Your task to perform on an android device: Go to sound settings Image 0: 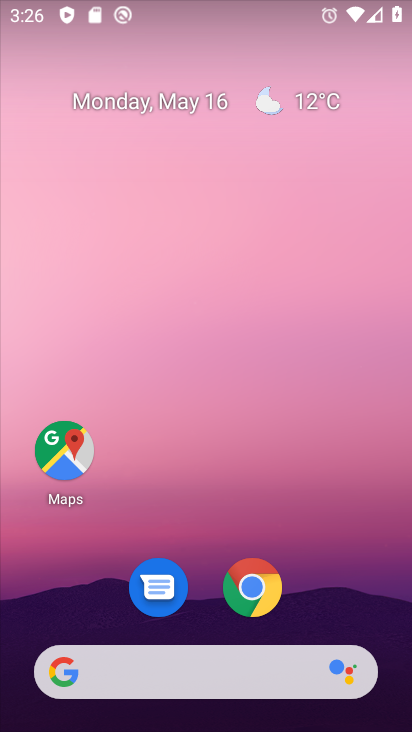
Step 0: drag from (393, 641) to (394, 285)
Your task to perform on an android device: Go to sound settings Image 1: 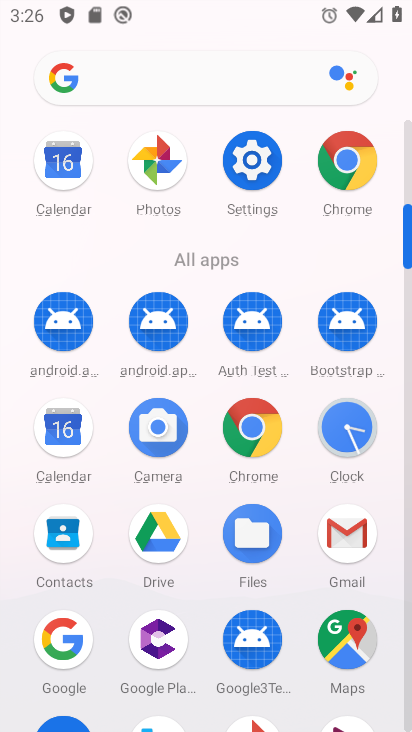
Step 1: click (260, 168)
Your task to perform on an android device: Go to sound settings Image 2: 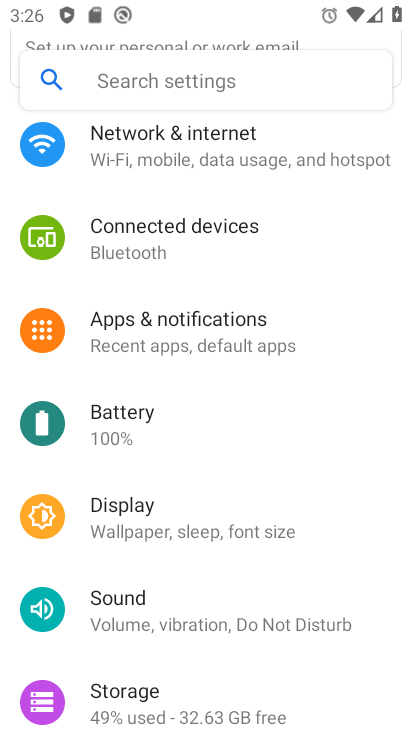
Step 2: click (112, 594)
Your task to perform on an android device: Go to sound settings Image 3: 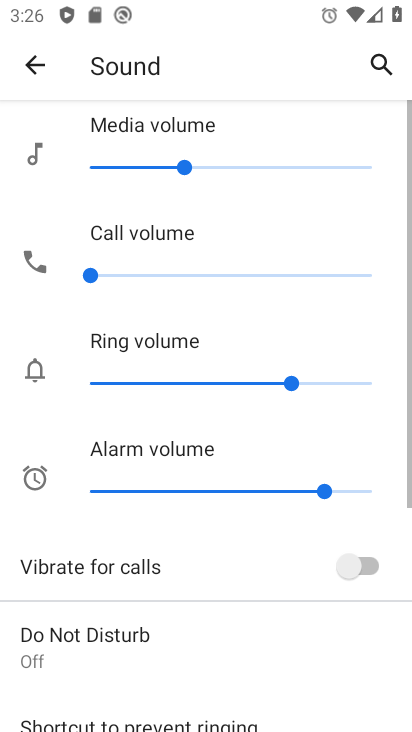
Step 3: task complete